Your task to perform on an android device: Show me popular videos on Youtube Image 0: 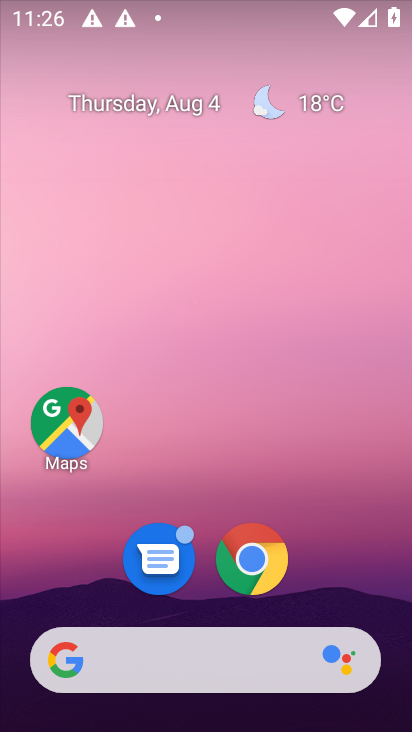
Step 0: drag from (49, 711) to (258, 214)
Your task to perform on an android device: Show me popular videos on Youtube Image 1: 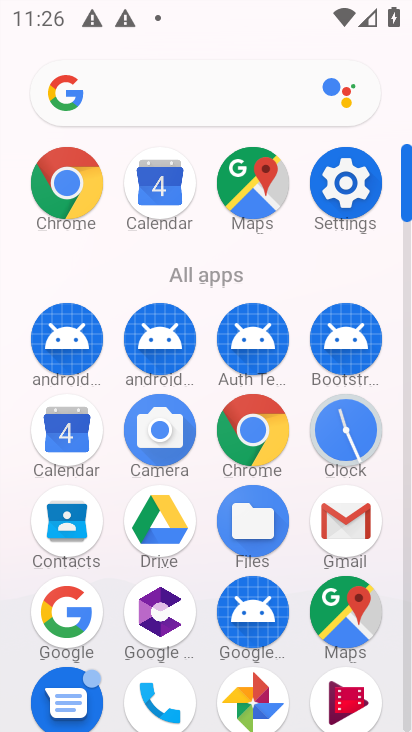
Step 1: click (406, 567)
Your task to perform on an android device: Show me popular videos on Youtube Image 2: 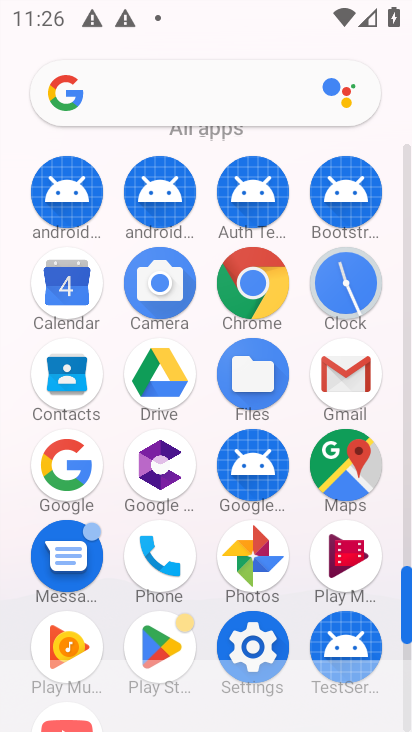
Step 2: click (405, 684)
Your task to perform on an android device: Show me popular videos on Youtube Image 3: 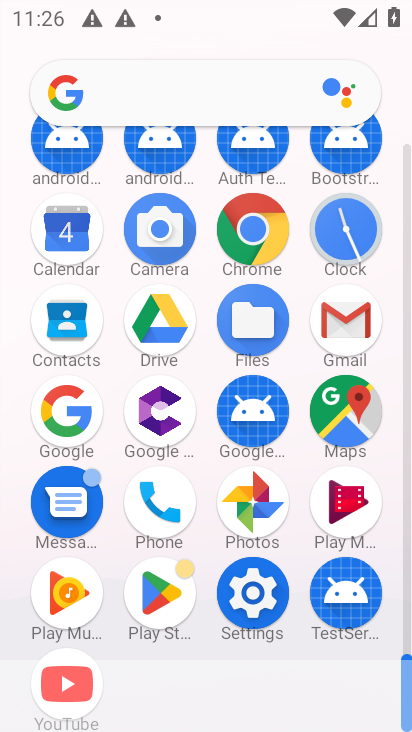
Step 3: click (78, 686)
Your task to perform on an android device: Show me popular videos on Youtube Image 4: 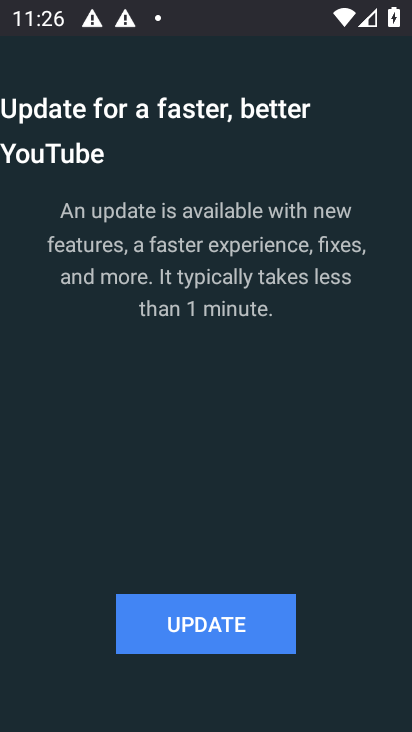
Step 4: click (208, 616)
Your task to perform on an android device: Show me popular videos on Youtube Image 5: 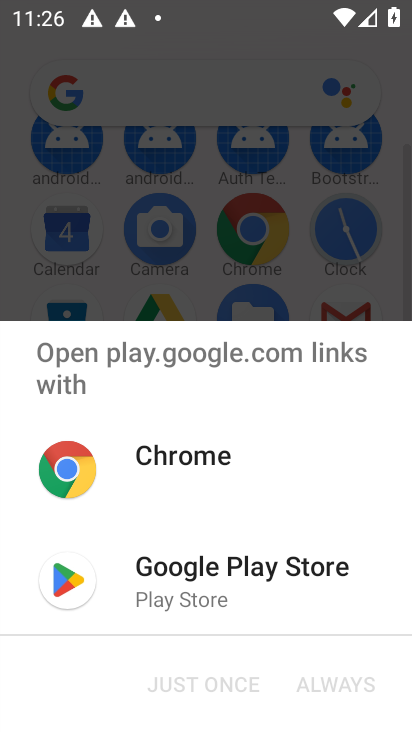
Step 5: click (158, 474)
Your task to perform on an android device: Show me popular videos on Youtube Image 6: 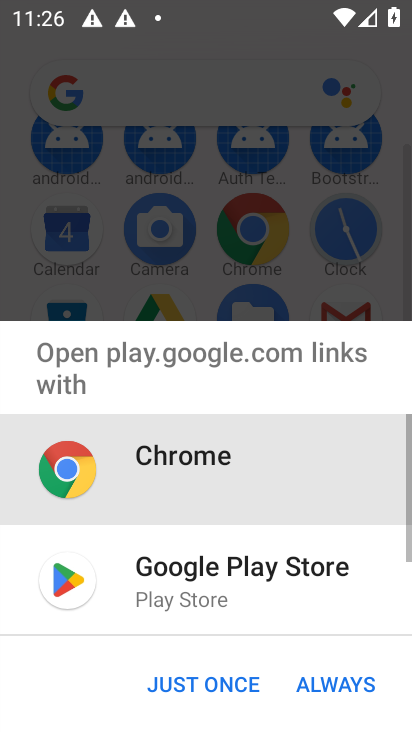
Step 6: click (119, 585)
Your task to perform on an android device: Show me popular videos on Youtube Image 7: 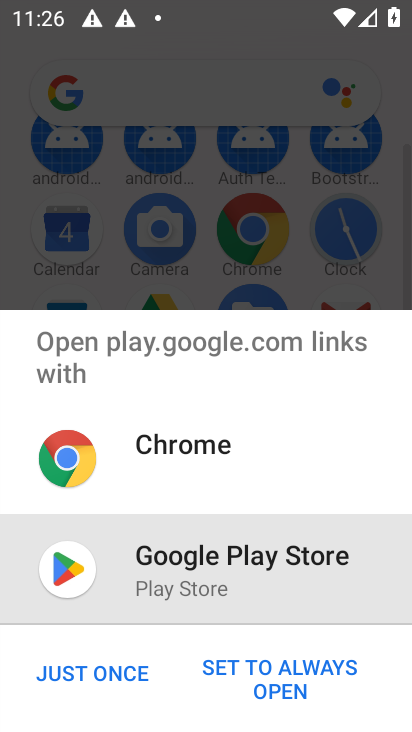
Step 7: click (124, 680)
Your task to perform on an android device: Show me popular videos on Youtube Image 8: 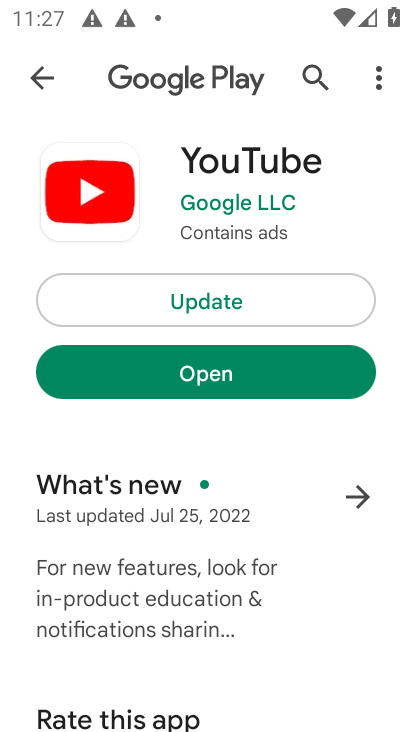
Step 8: click (177, 381)
Your task to perform on an android device: Show me popular videos on Youtube Image 9: 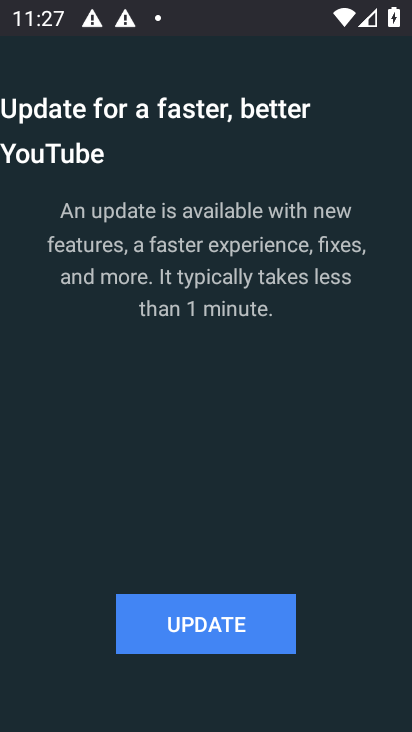
Step 9: task complete